Your task to perform on an android device: turn off improve location accuracy Image 0: 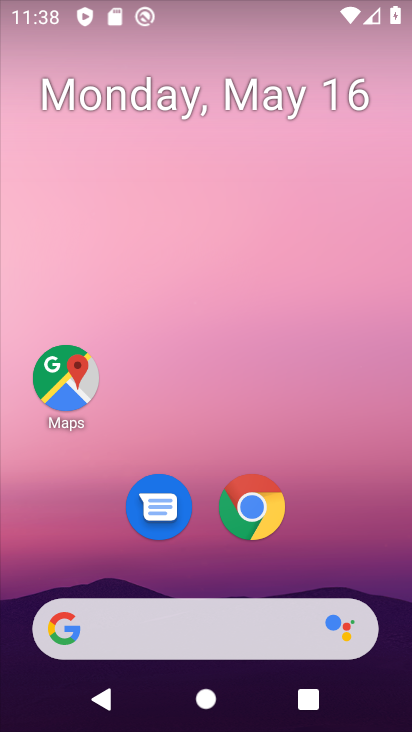
Step 0: drag from (211, 599) to (267, 210)
Your task to perform on an android device: turn off improve location accuracy Image 1: 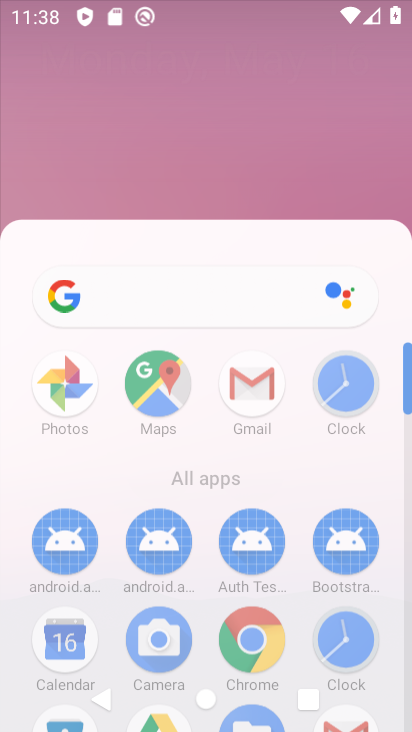
Step 1: drag from (291, 149) to (301, 112)
Your task to perform on an android device: turn off improve location accuracy Image 2: 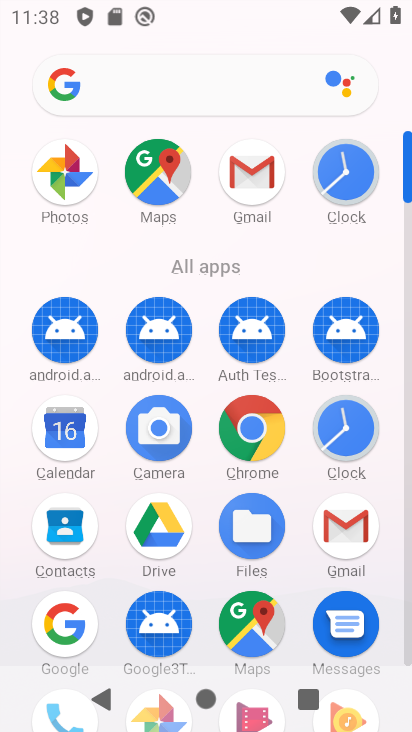
Step 2: drag from (226, 434) to (281, 28)
Your task to perform on an android device: turn off improve location accuracy Image 3: 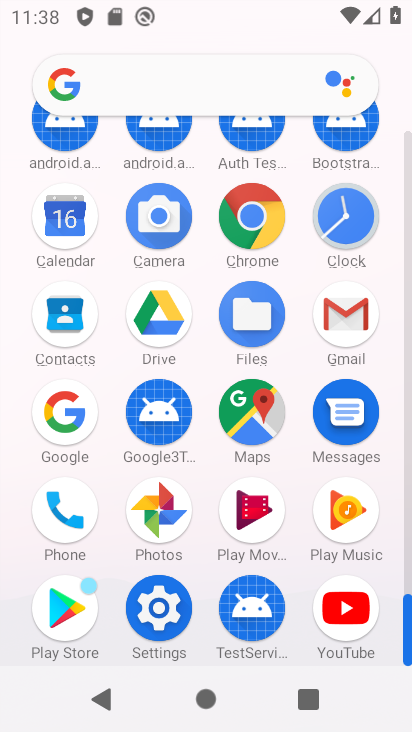
Step 3: click (162, 609)
Your task to perform on an android device: turn off improve location accuracy Image 4: 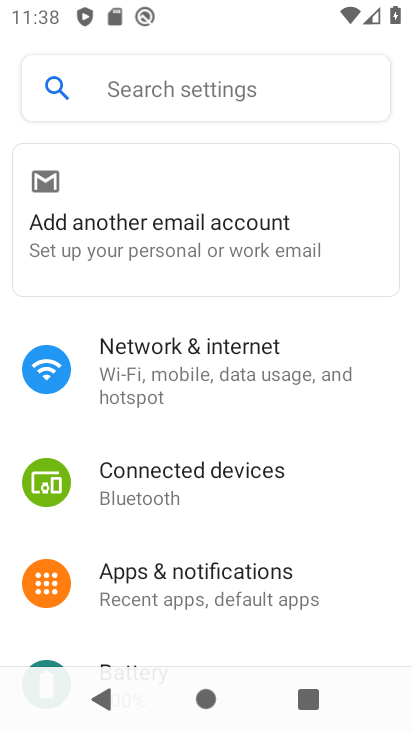
Step 4: drag from (233, 498) to (334, 191)
Your task to perform on an android device: turn off improve location accuracy Image 5: 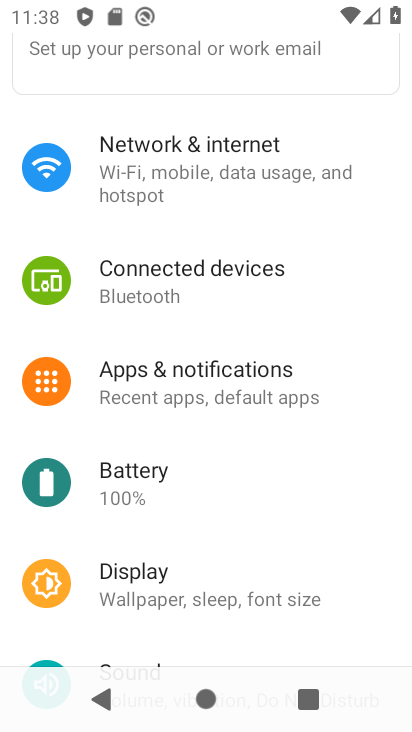
Step 5: drag from (253, 525) to (285, 183)
Your task to perform on an android device: turn off improve location accuracy Image 6: 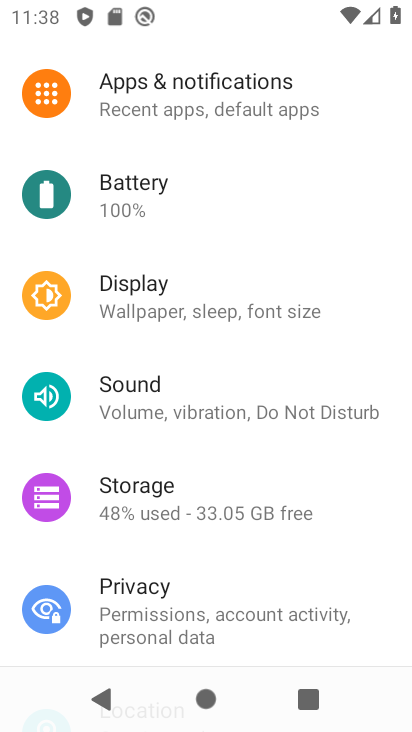
Step 6: drag from (257, 445) to (259, 224)
Your task to perform on an android device: turn off improve location accuracy Image 7: 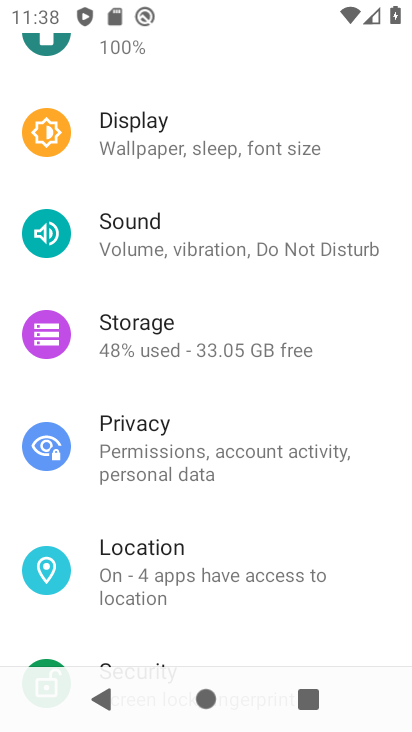
Step 7: click (188, 580)
Your task to perform on an android device: turn off improve location accuracy Image 8: 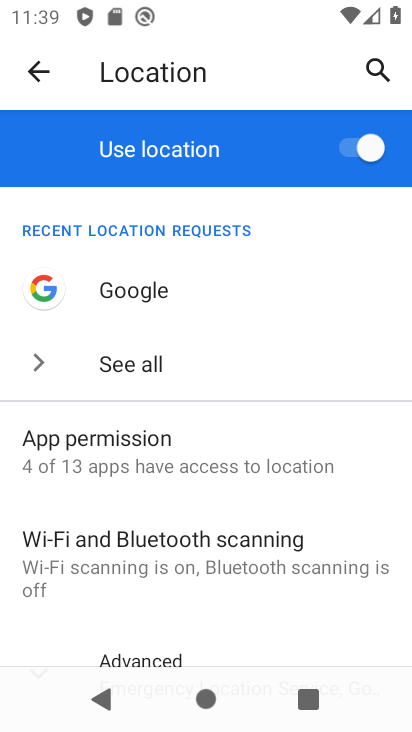
Step 8: drag from (141, 517) to (210, 264)
Your task to perform on an android device: turn off improve location accuracy Image 9: 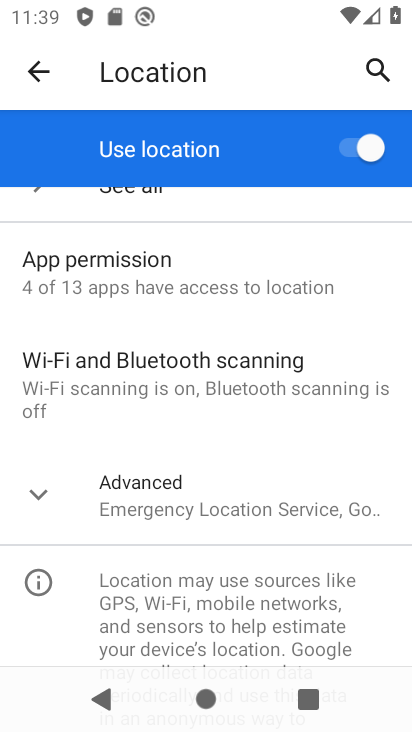
Step 9: click (228, 499)
Your task to perform on an android device: turn off improve location accuracy Image 10: 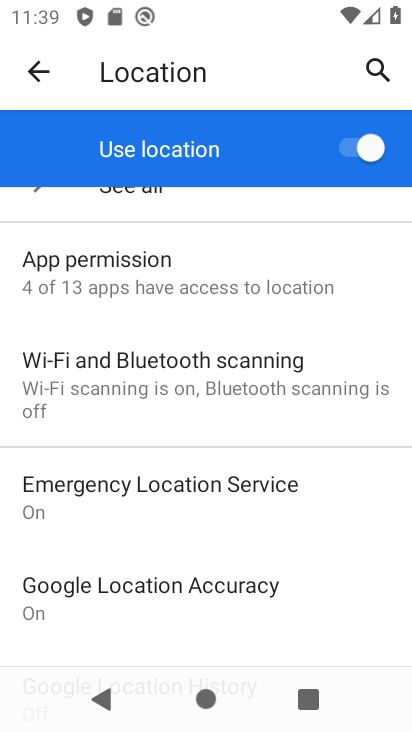
Step 10: click (191, 587)
Your task to perform on an android device: turn off improve location accuracy Image 11: 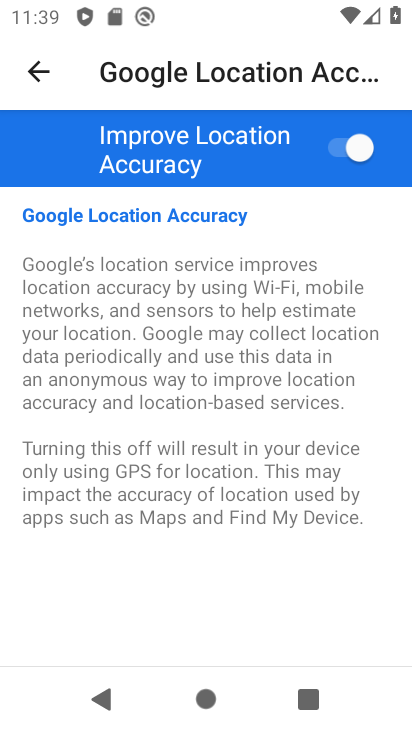
Step 11: click (341, 145)
Your task to perform on an android device: turn off improve location accuracy Image 12: 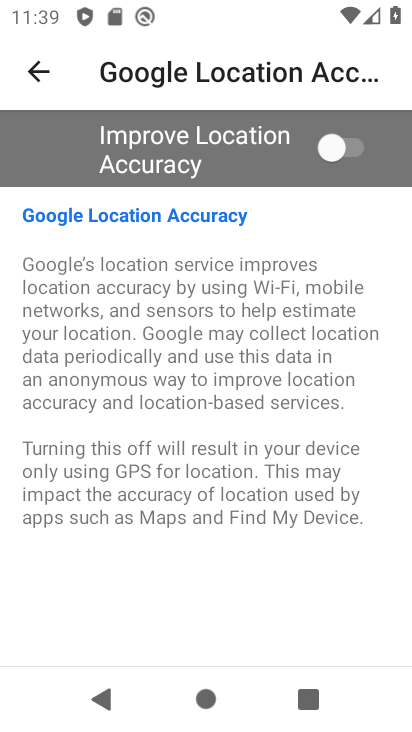
Step 12: task complete